Your task to perform on an android device: Open CNN.com Image 0: 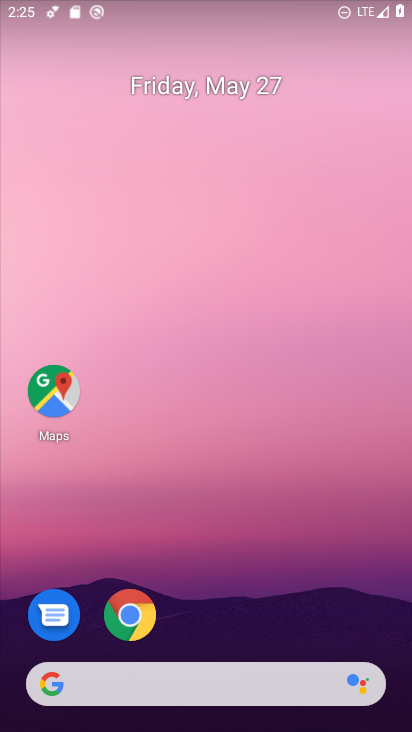
Step 0: drag from (245, 633) to (198, 268)
Your task to perform on an android device: Open CNN.com Image 1: 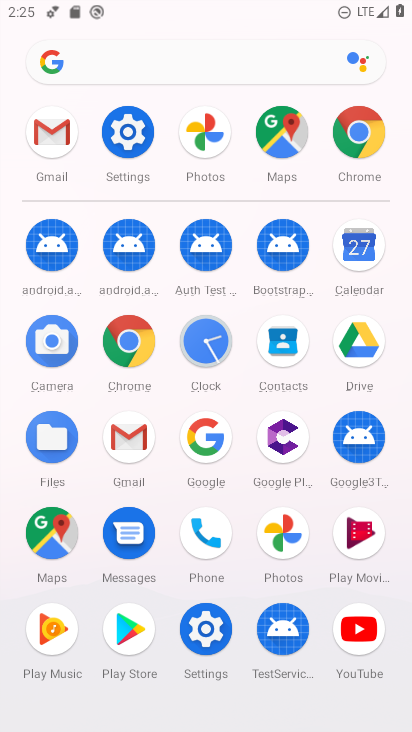
Step 1: click (124, 360)
Your task to perform on an android device: Open CNN.com Image 2: 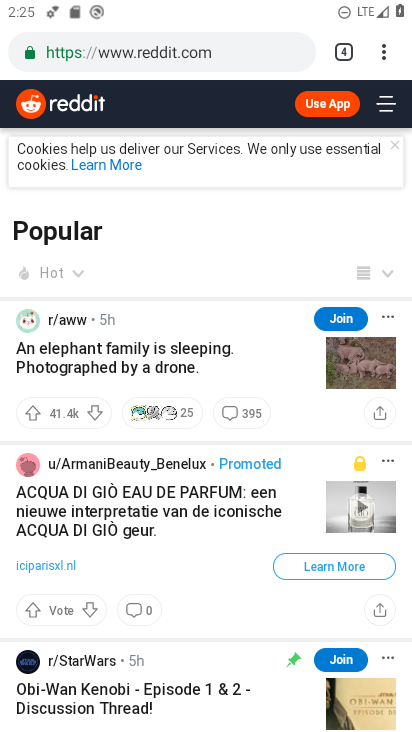
Step 2: click (341, 53)
Your task to perform on an android device: Open CNN.com Image 3: 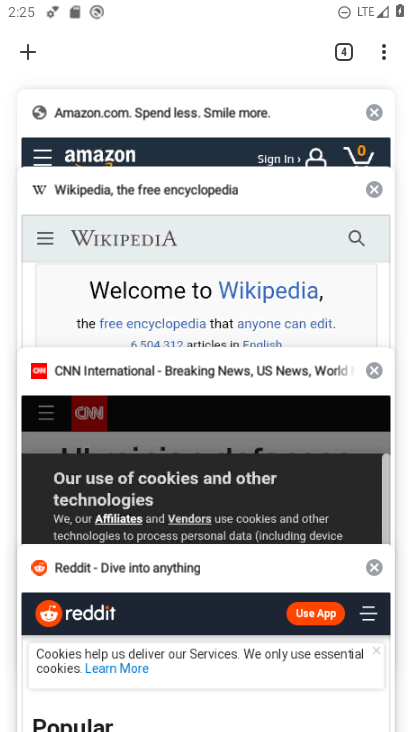
Step 3: click (39, 45)
Your task to perform on an android device: Open CNN.com Image 4: 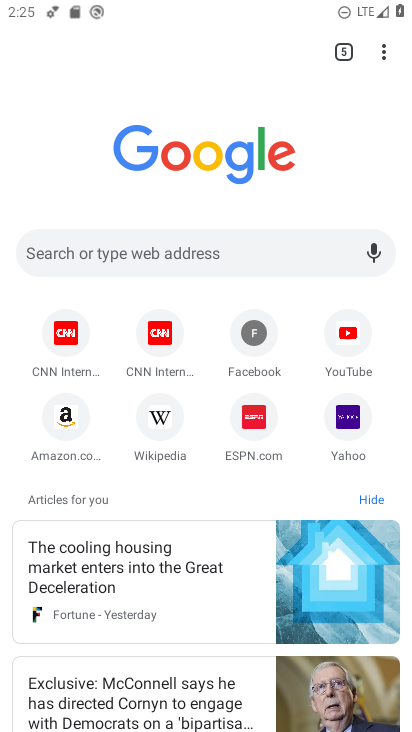
Step 4: click (166, 343)
Your task to perform on an android device: Open CNN.com Image 5: 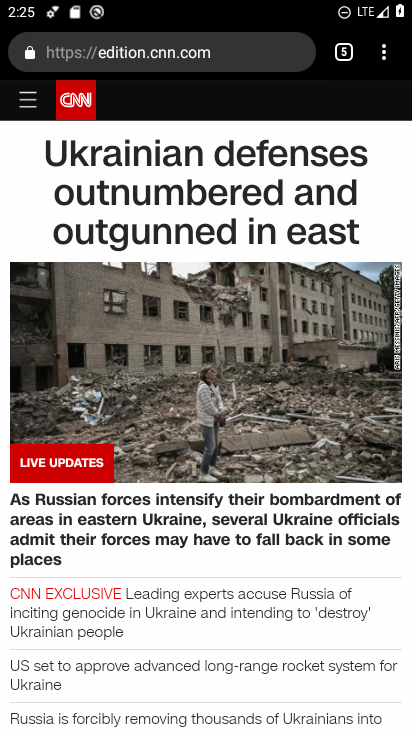
Step 5: task complete